Your task to perform on an android device: open chrome and create a bookmark for the current page Image 0: 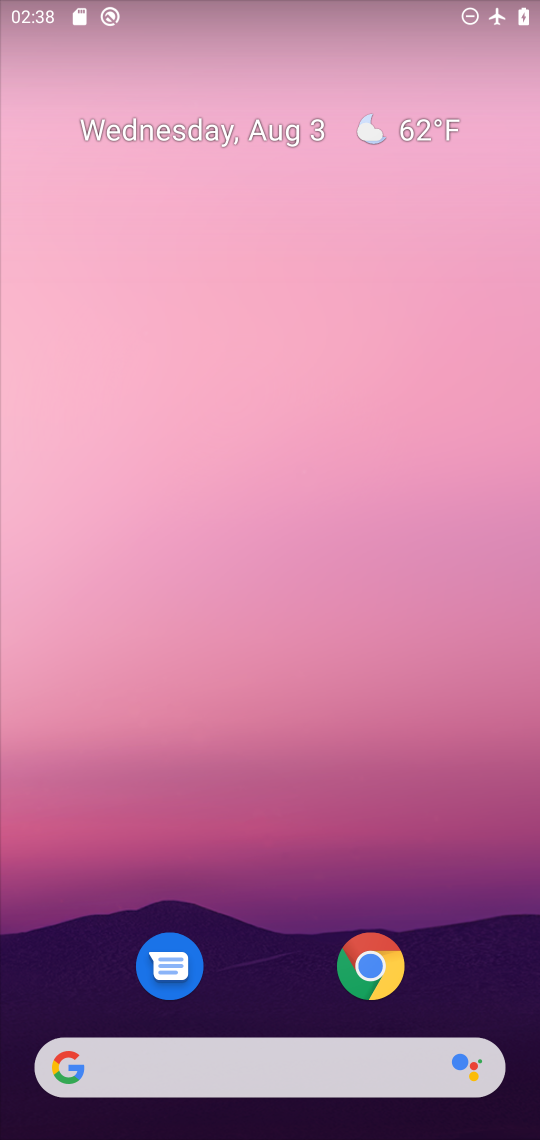
Step 0: click (377, 989)
Your task to perform on an android device: open chrome and create a bookmark for the current page Image 1: 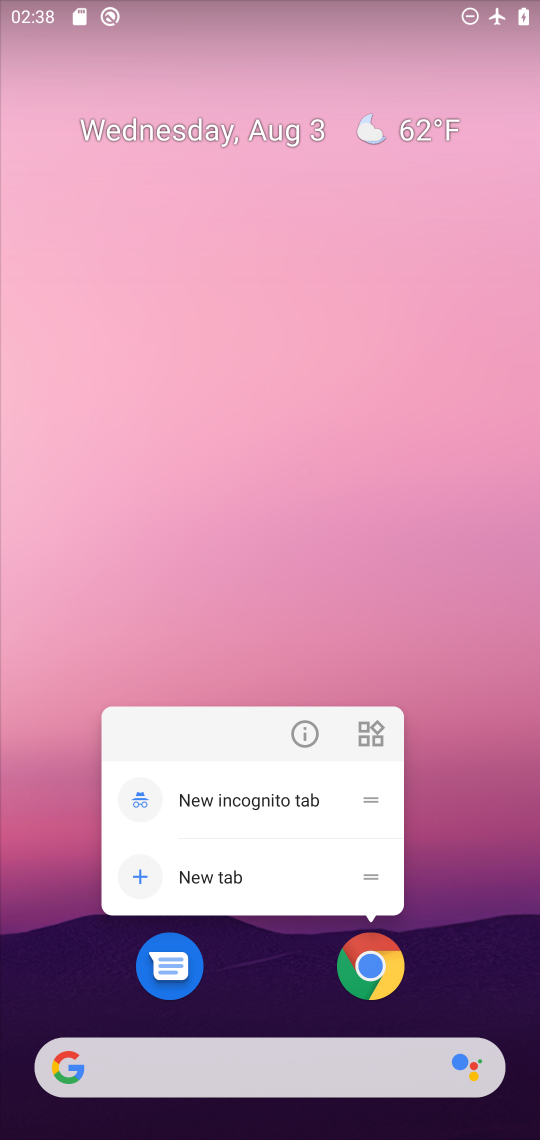
Step 1: click (377, 973)
Your task to perform on an android device: open chrome and create a bookmark for the current page Image 2: 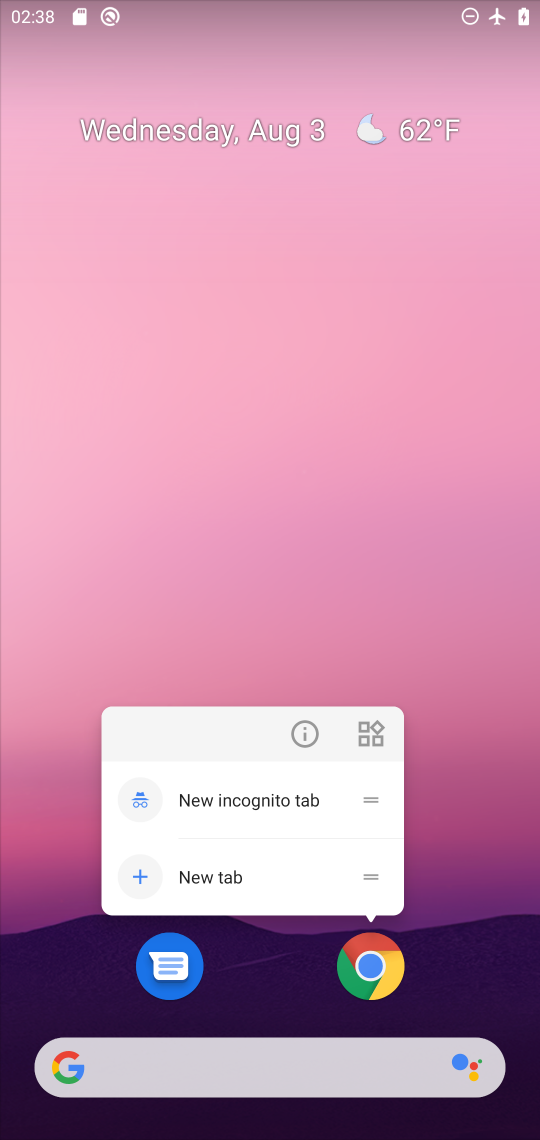
Step 2: click (386, 951)
Your task to perform on an android device: open chrome and create a bookmark for the current page Image 3: 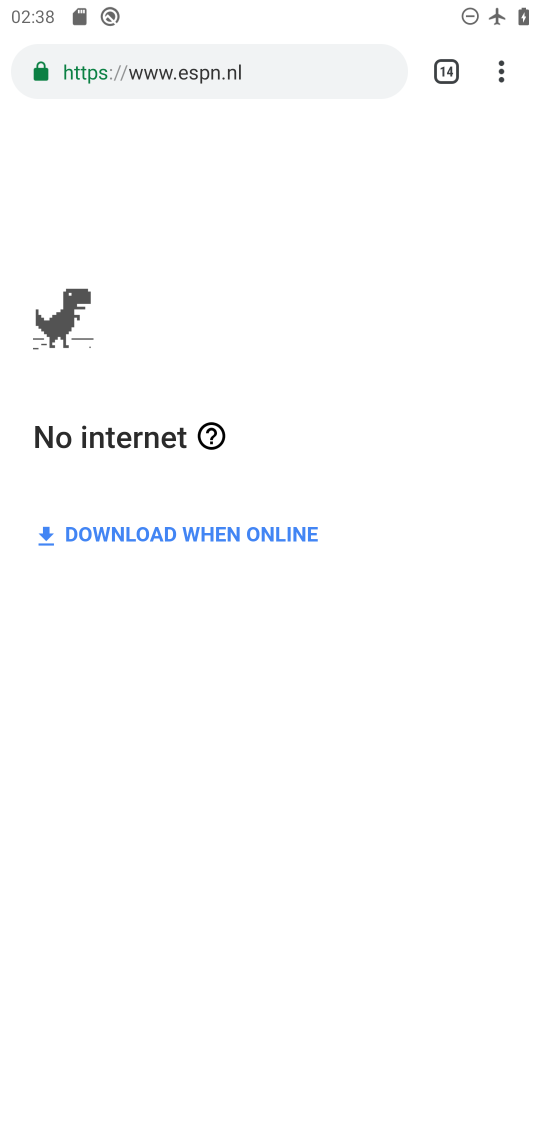
Step 3: click (498, 72)
Your task to perform on an android device: open chrome and create a bookmark for the current page Image 4: 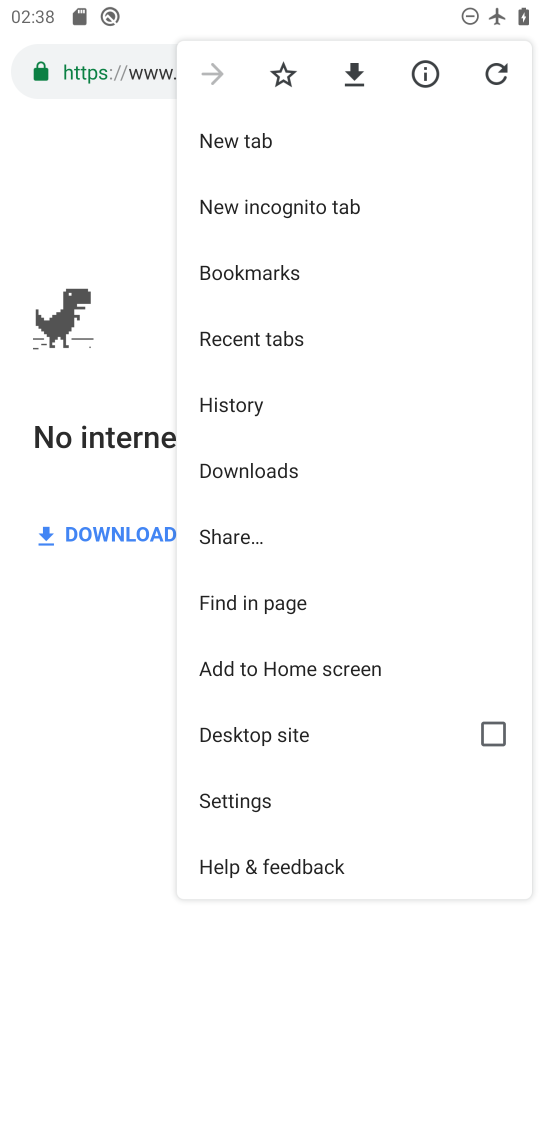
Step 4: task complete